Your task to perform on an android device: Show me recent news Image 0: 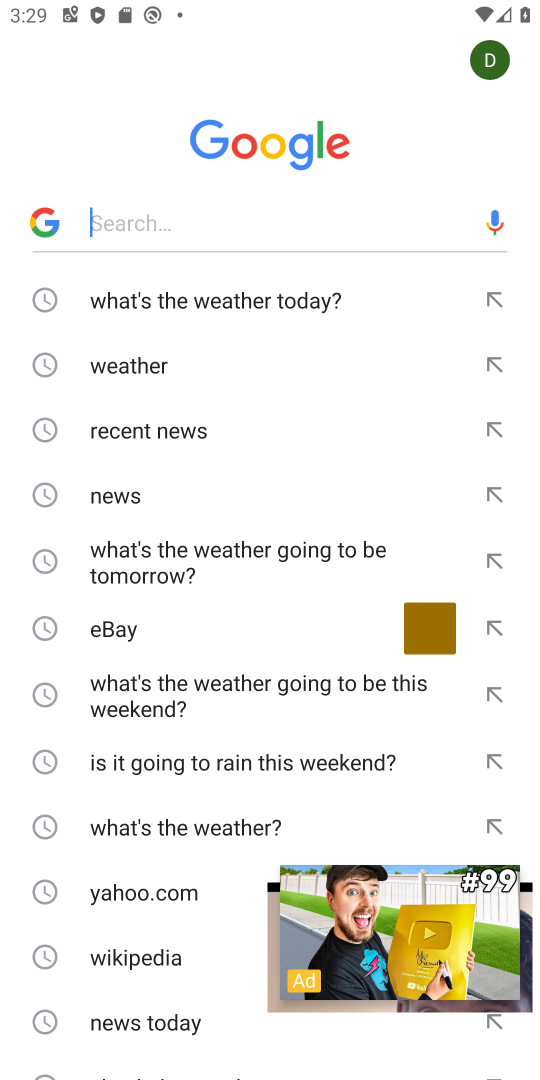
Step 0: press home button
Your task to perform on an android device: Show me recent news Image 1: 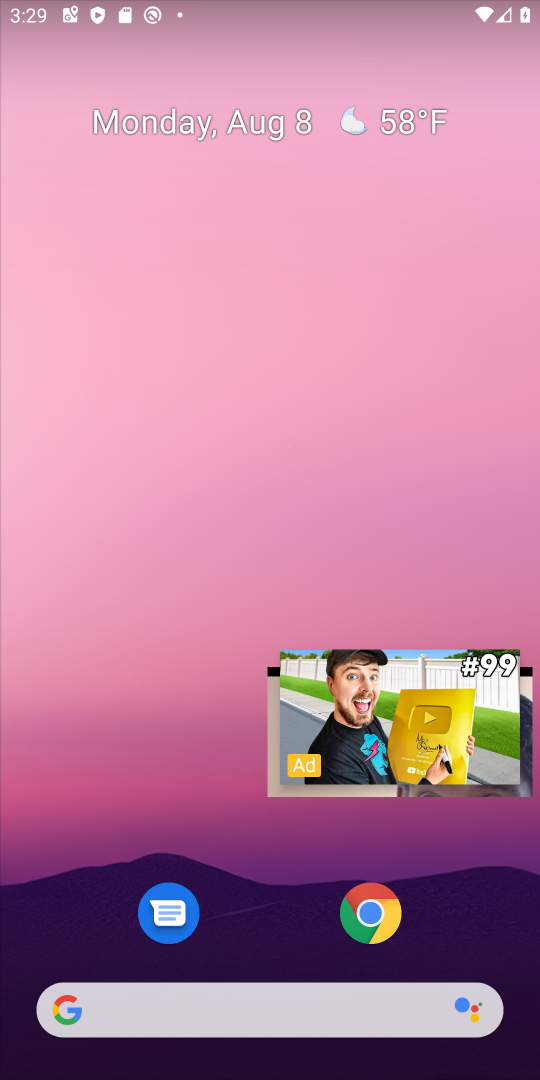
Step 1: task complete